Your task to perform on an android device: open chrome and create a bookmark for the current page Image 0: 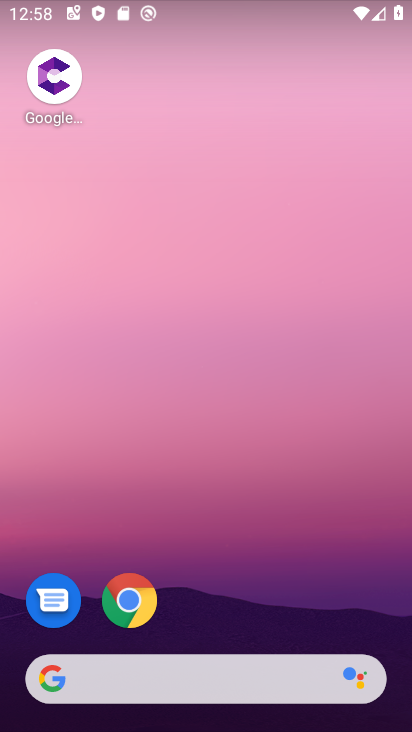
Step 0: click (138, 592)
Your task to perform on an android device: open chrome and create a bookmark for the current page Image 1: 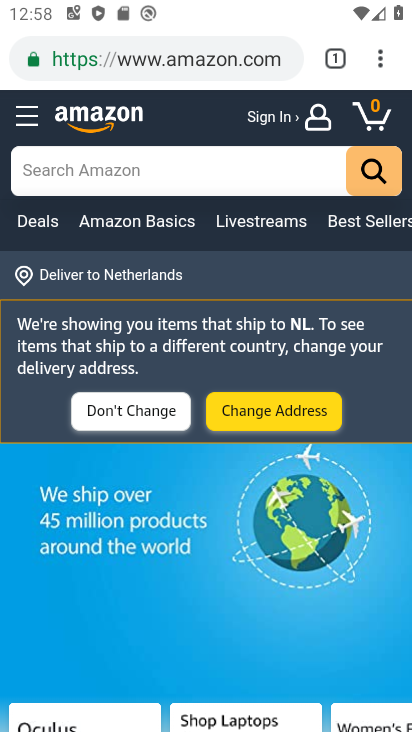
Step 1: task complete